Your task to perform on an android device: Turn on the flashlight Image 0: 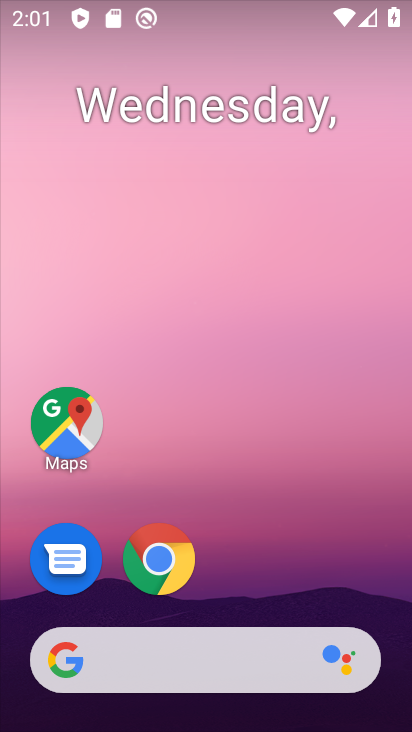
Step 0: drag from (296, 574) to (261, 61)
Your task to perform on an android device: Turn on the flashlight Image 1: 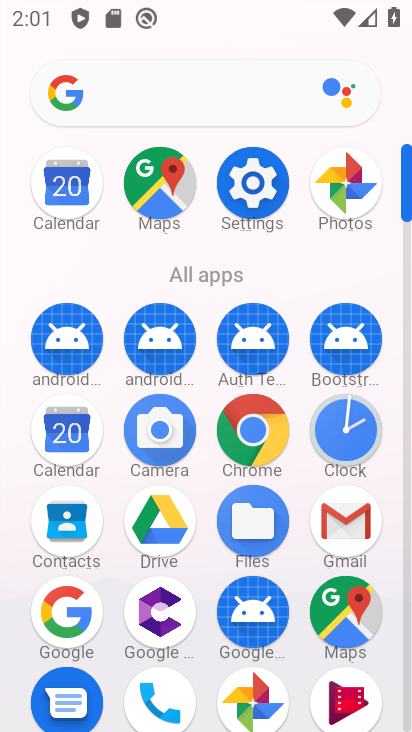
Step 1: click (243, 171)
Your task to perform on an android device: Turn on the flashlight Image 2: 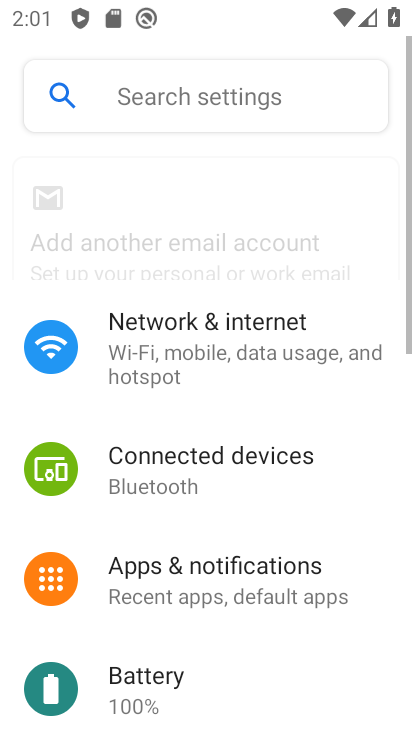
Step 2: click (140, 96)
Your task to perform on an android device: Turn on the flashlight Image 3: 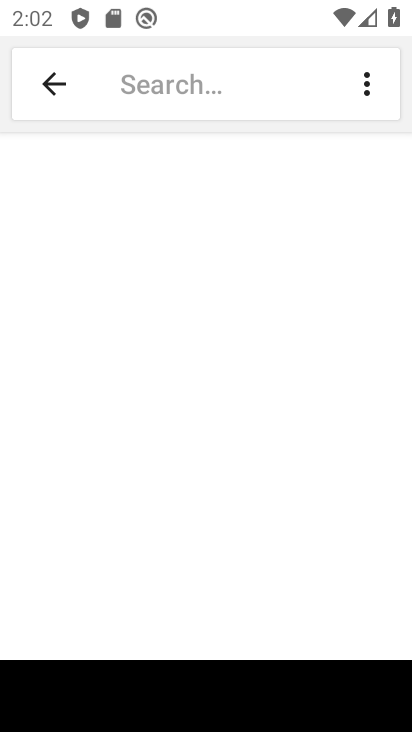
Step 3: type "flashlight"
Your task to perform on an android device: Turn on the flashlight Image 4: 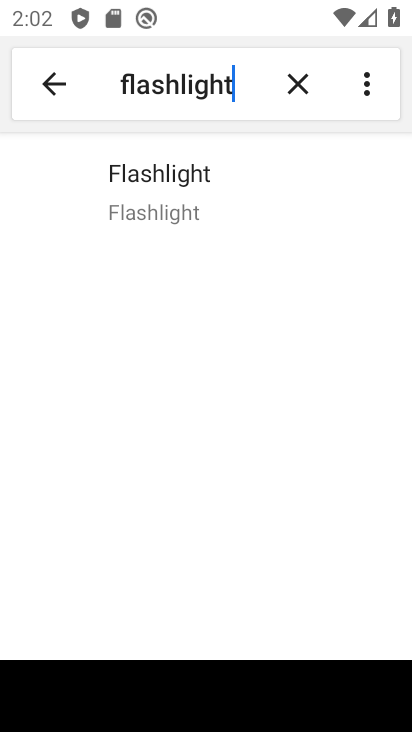
Step 4: click (178, 196)
Your task to perform on an android device: Turn on the flashlight Image 5: 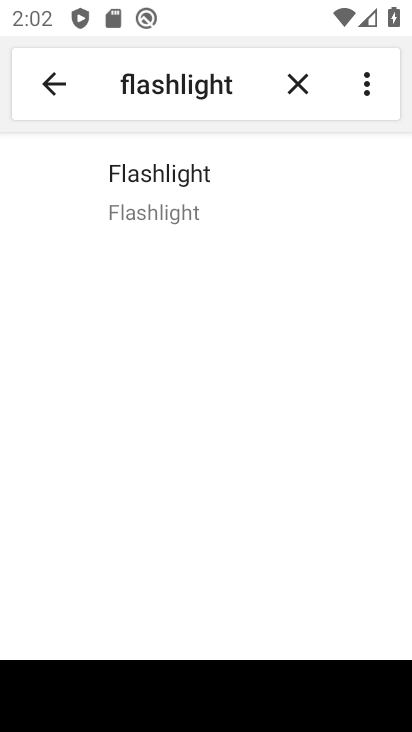
Step 5: task complete